Your task to perform on an android device: Open Reddit.com Image 0: 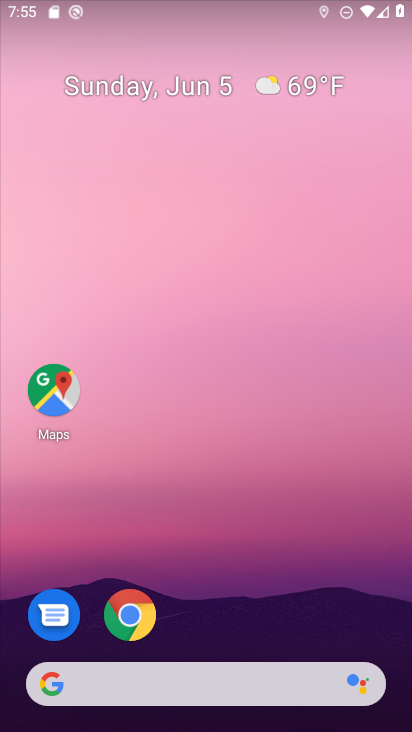
Step 0: click (136, 627)
Your task to perform on an android device: Open Reddit.com Image 1: 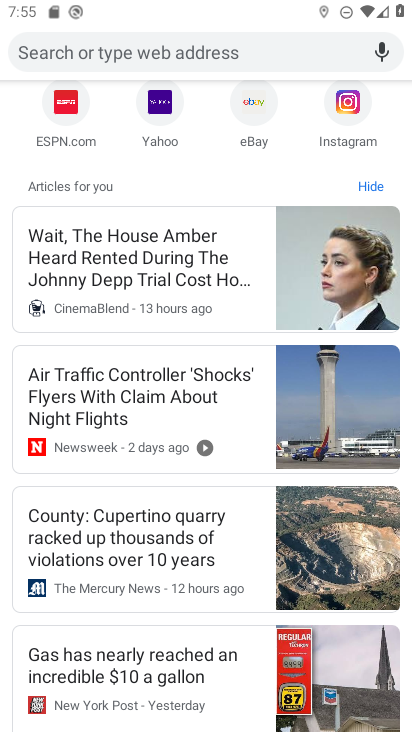
Step 1: drag from (198, 181) to (208, 426)
Your task to perform on an android device: Open Reddit.com Image 2: 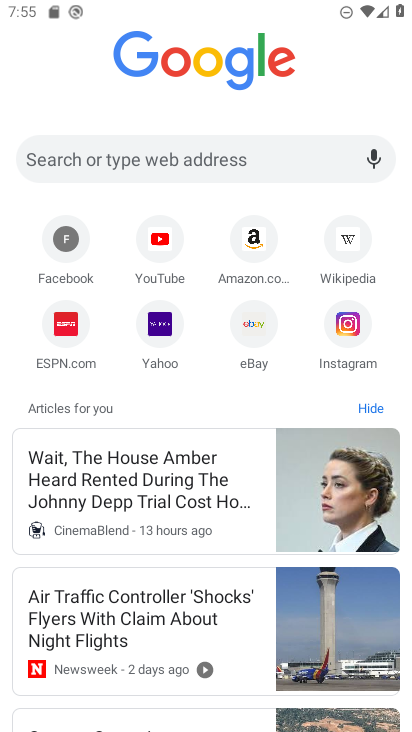
Step 2: click (168, 139)
Your task to perform on an android device: Open Reddit.com Image 3: 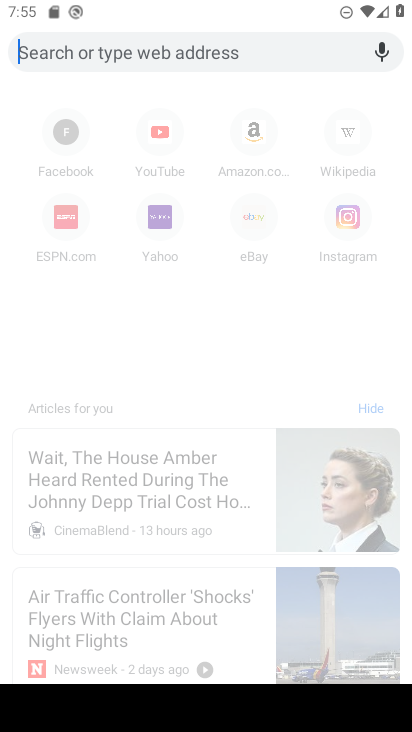
Step 3: type "www.reddit.com"
Your task to perform on an android device: Open Reddit.com Image 4: 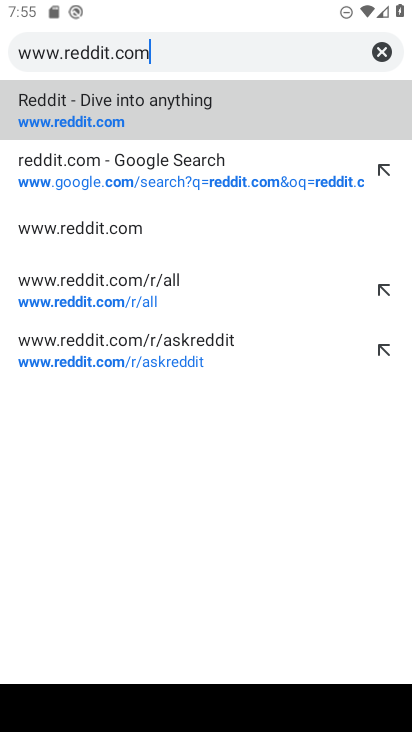
Step 4: click (99, 100)
Your task to perform on an android device: Open Reddit.com Image 5: 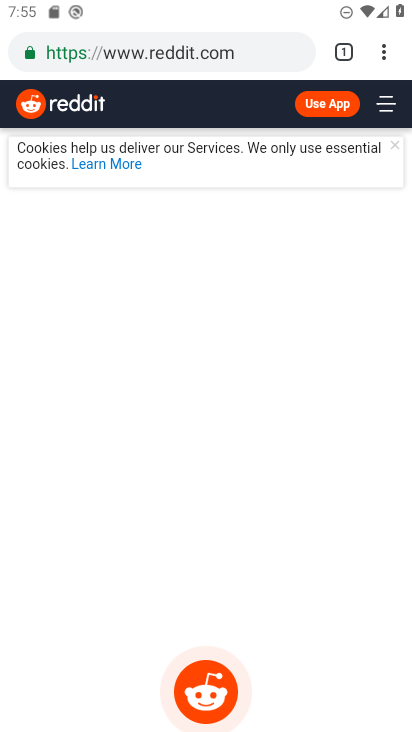
Step 5: task complete